Your task to perform on an android device: toggle sleep mode Image 0: 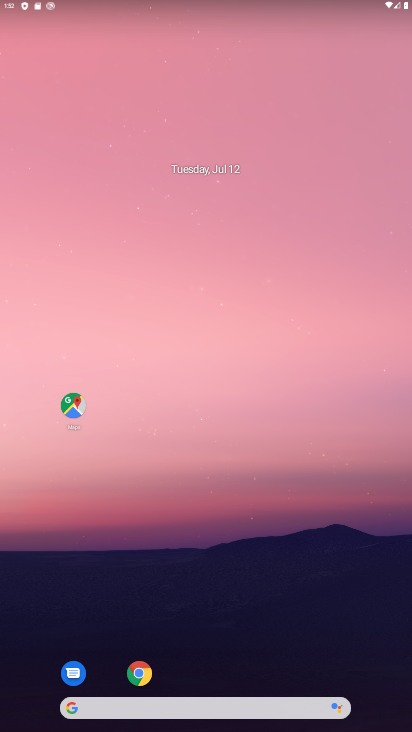
Step 0: drag from (173, 663) to (294, 47)
Your task to perform on an android device: toggle sleep mode Image 1: 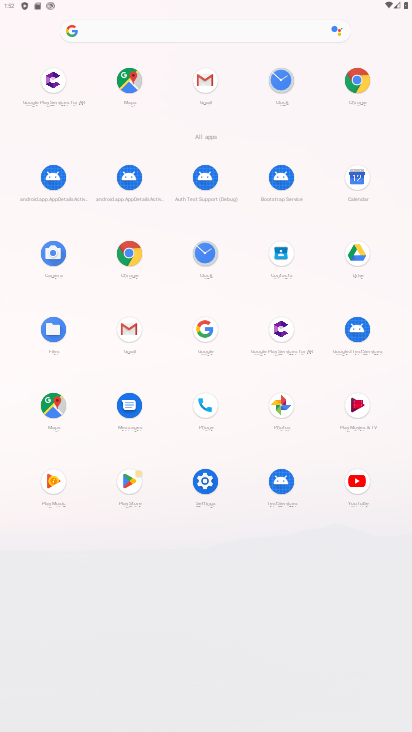
Step 1: click (203, 480)
Your task to perform on an android device: toggle sleep mode Image 2: 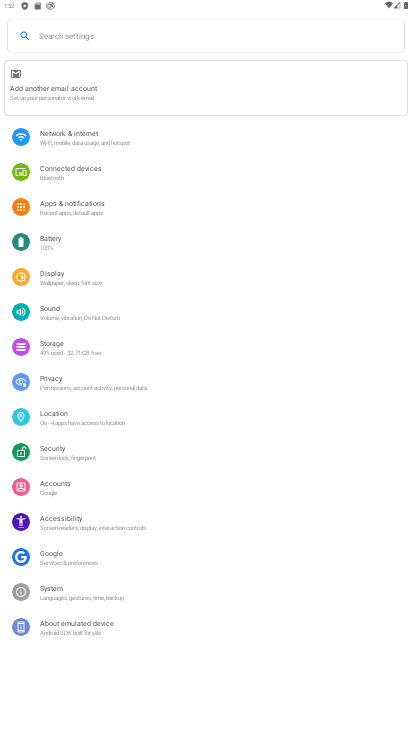
Step 2: click (75, 278)
Your task to perform on an android device: toggle sleep mode Image 3: 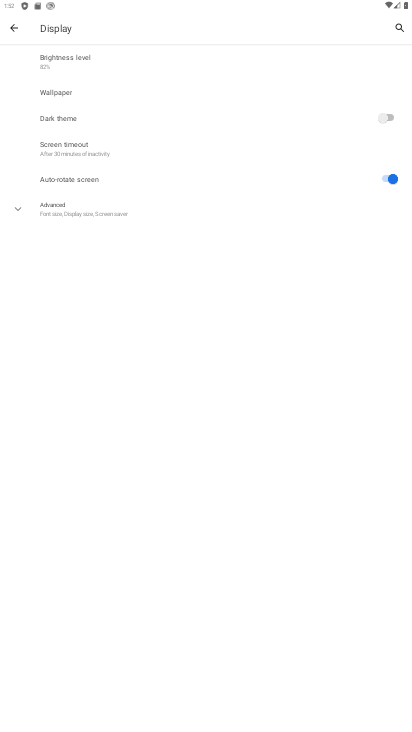
Step 3: click (73, 149)
Your task to perform on an android device: toggle sleep mode Image 4: 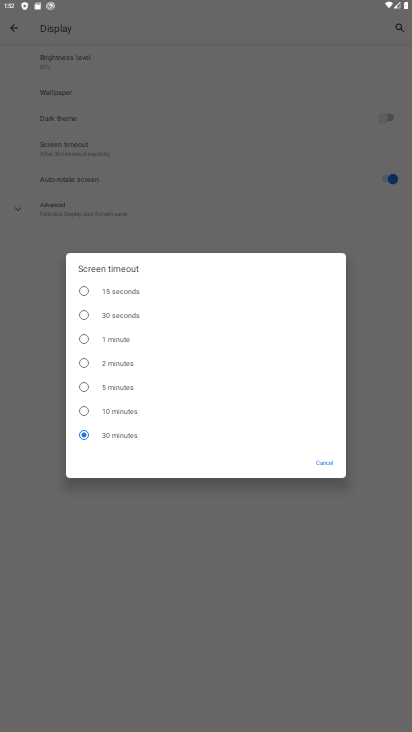
Step 4: click (103, 387)
Your task to perform on an android device: toggle sleep mode Image 5: 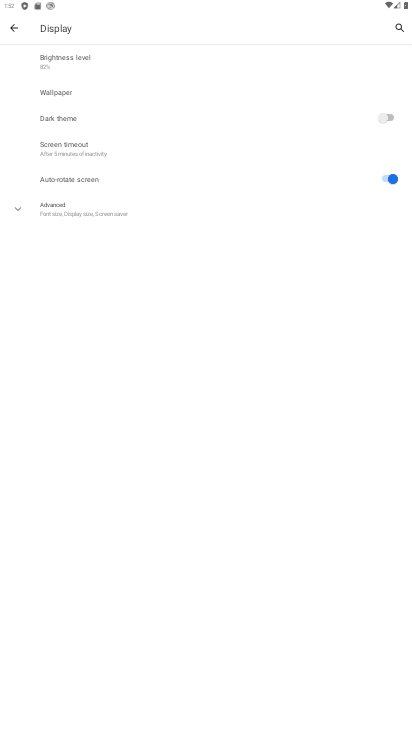
Step 5: task complete